Your task to perform on an android device: turn on improve location accuracy Image 0: 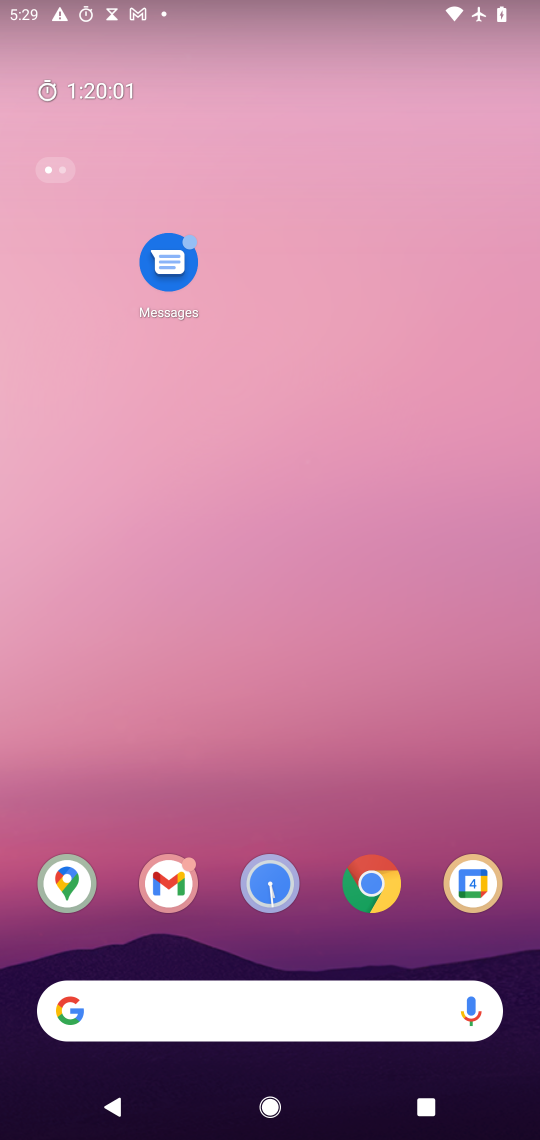
Step 0: drag from (316, 945) to (316, 58)
Your task to perform on an android device: turn on improve location accuracy Image 1: 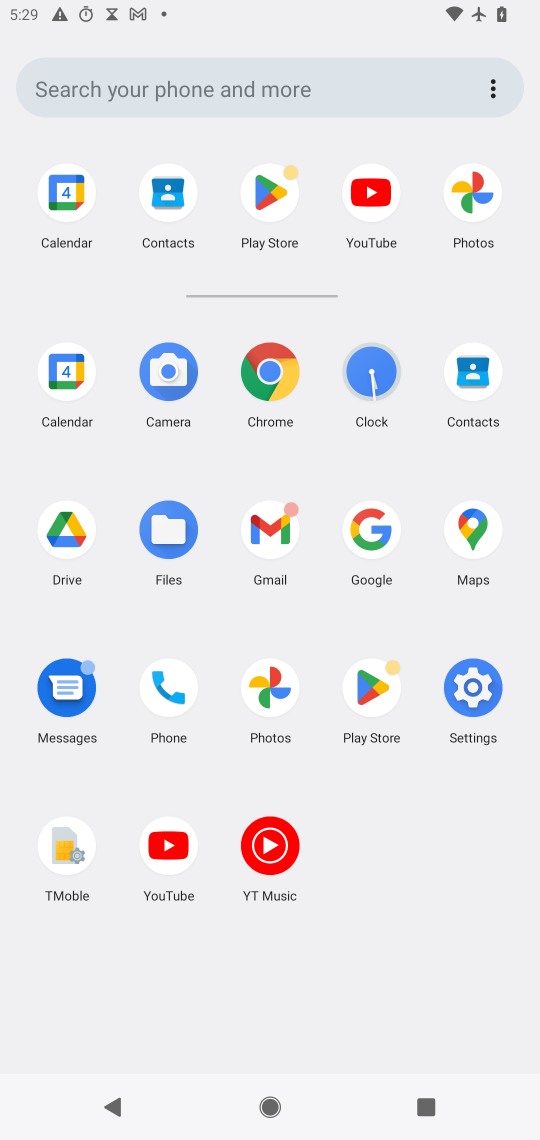
Step 1: click (480, 694)
Your task to perform on an android device: turn on improve location accuracy Image 2: 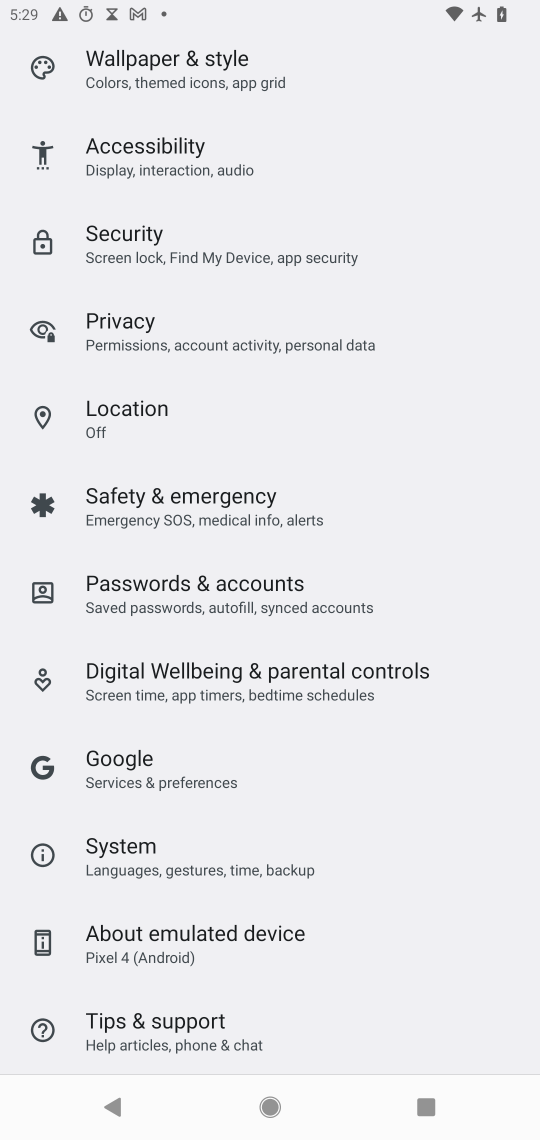
Step 2: click (131, 400)
Your task to perform on an android device: turn on improve location accuracy Image 3: 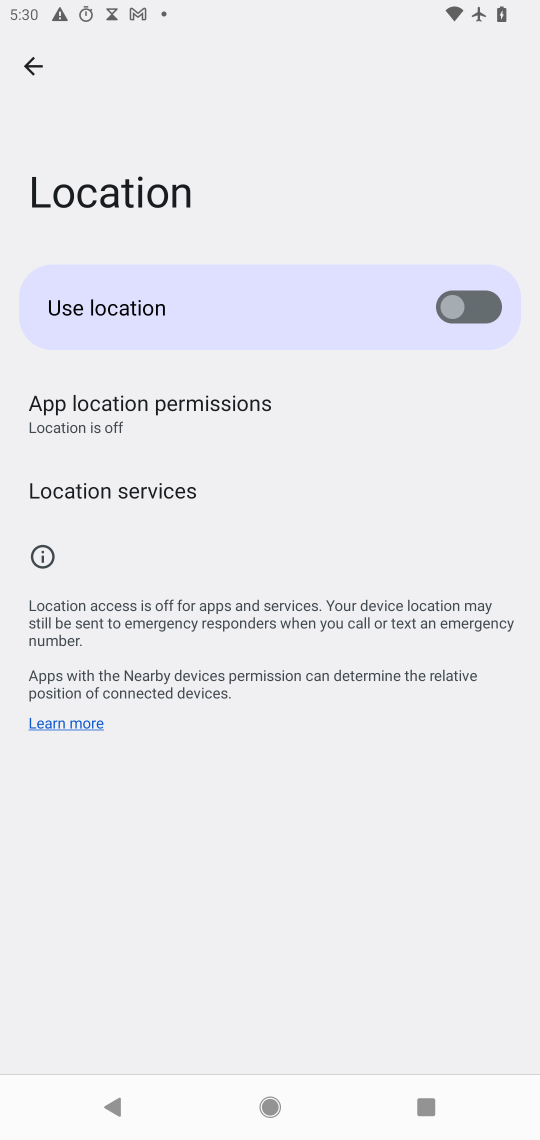
Step 3: click (166, 486)
Your task to perform on an android device: turn on improve location accuracy Image 4: 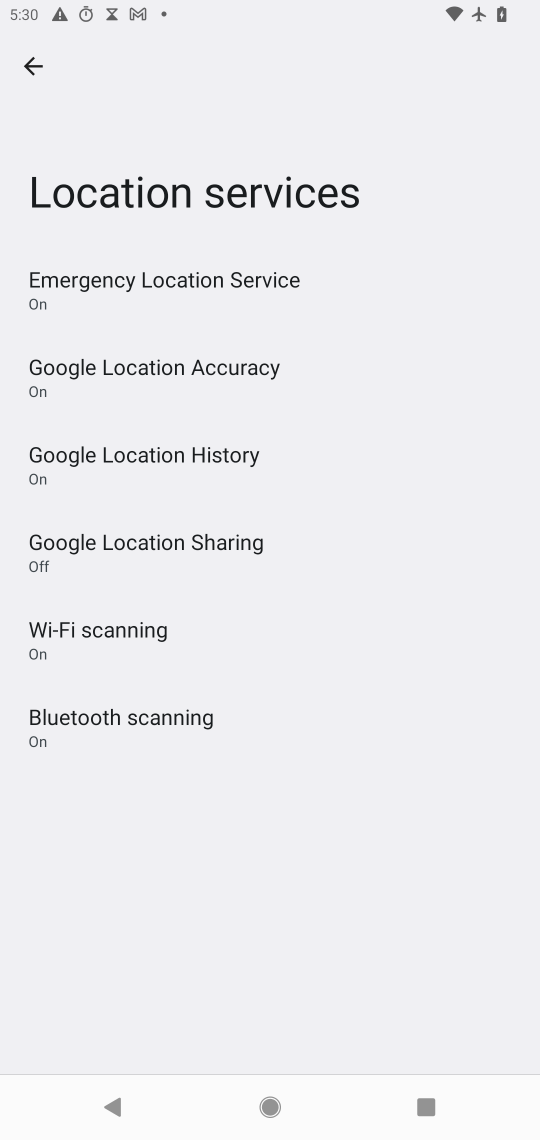
Step 4: click (189, 367)
Your task to perform on an android device: turn on improve location accuracy Image 5: 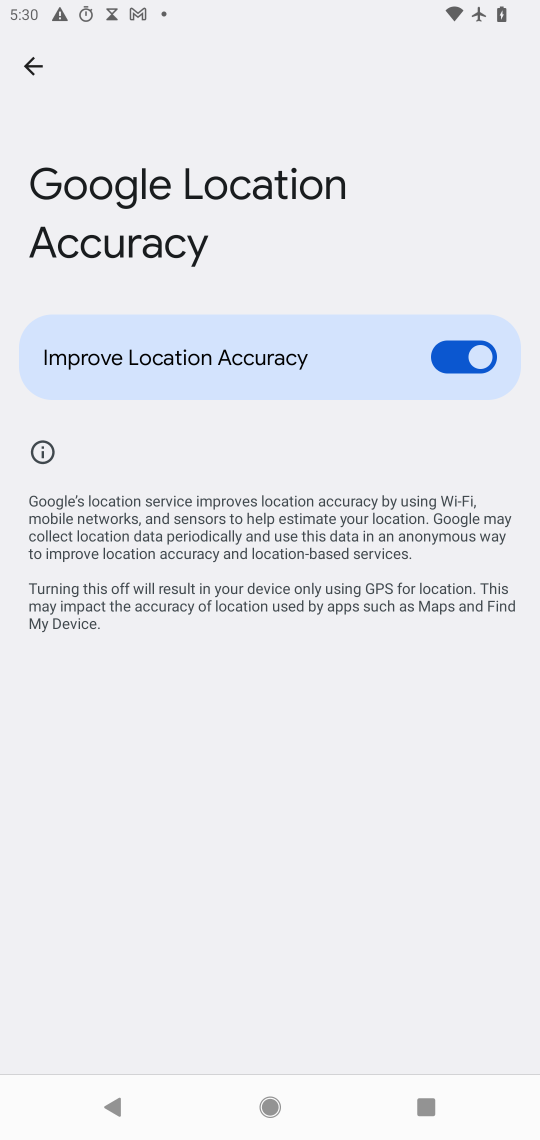
Step 5: task complete